Your task to perform on an android device: see tabs open on other devices in the chrome app Image 0: 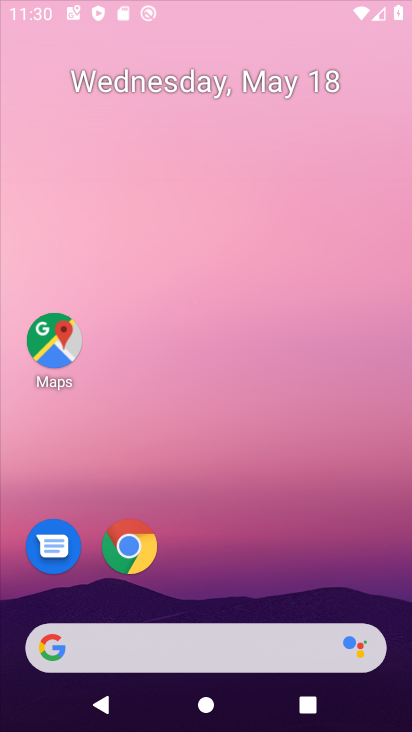
Step 0: press home button
Your task to perform on an android device: see tabs open on other devices in the chrome app Image 1: 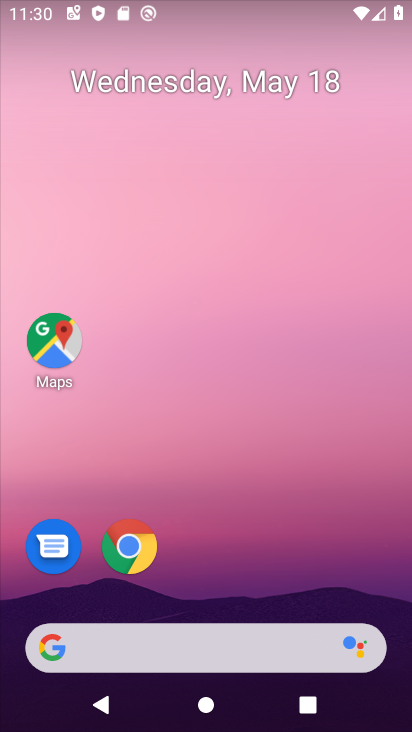
Step 1: click (124, 556)
Your task to perform on an android device: see tabs open on other devices in the chrome app Image 2: 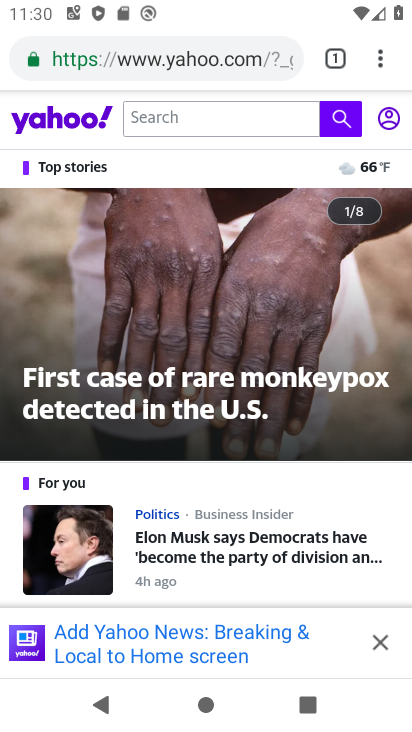
Step 2: click (343, 53)
Your task to perform on an android device: see tabs open on other devices in the chrome app Image 3: 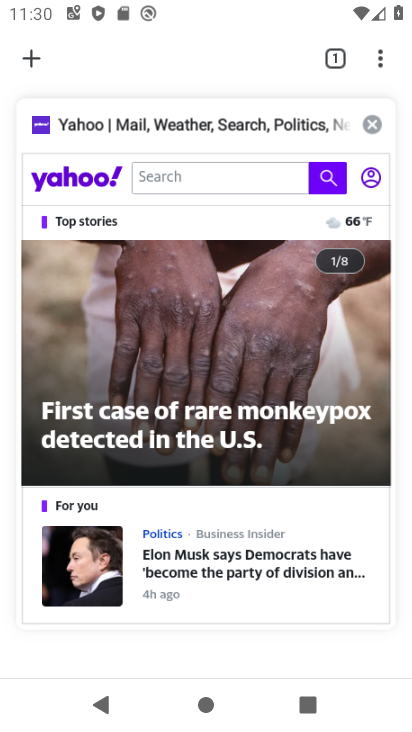
Step 3: task complete